Your task to perform on an android device: turn on the 12-hour format for clock Image 0: 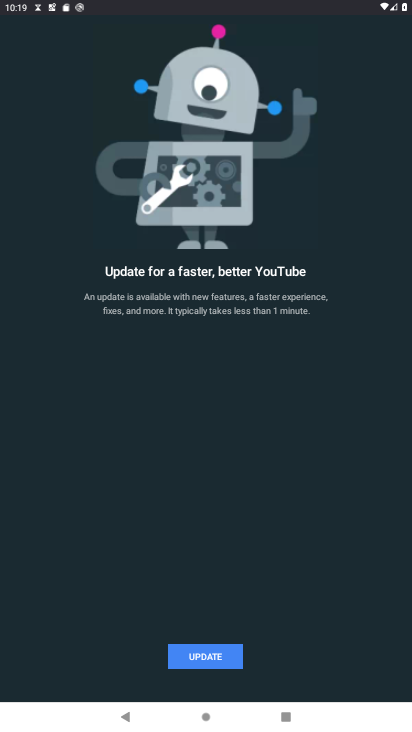
Step 0: press home button
Your task to perform on an android device: turn on the 12-hour format for clock Image 1: 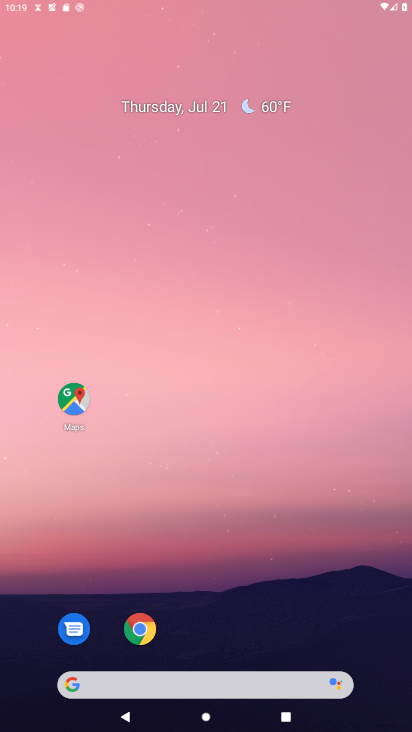
Step 1: drag from (226, 635) to (214, 173)
Your task to perform on an android device: turn on the 12-hour format for clock Image 2: 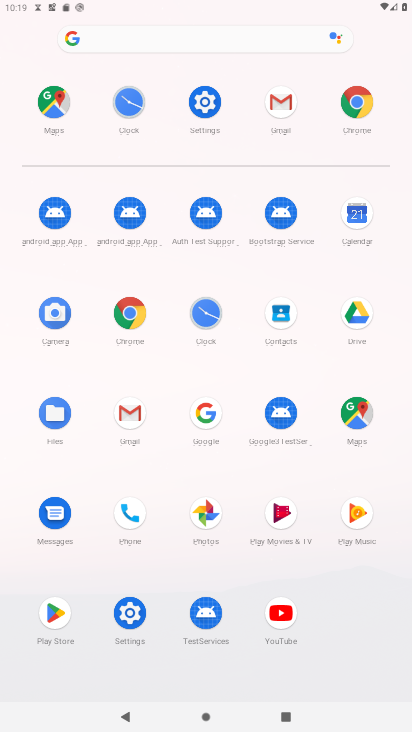
Step 2: click (214, 303)
Your task to perform on an android device: turn on the 12-hour format for clock Image 3: 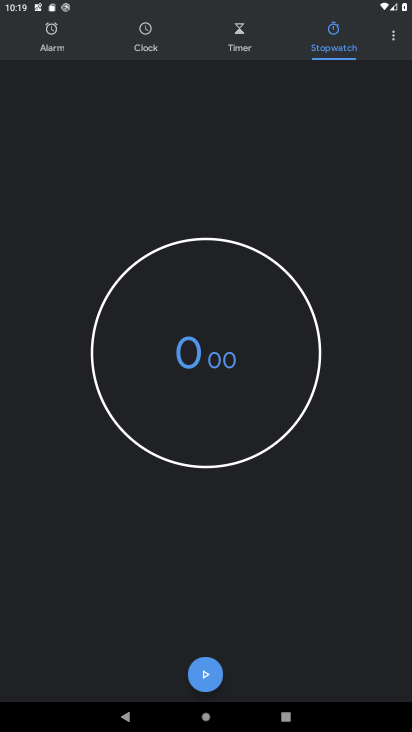
Step 3: click (394, 33)
Your task to perform on an android device: turn on the 12-hour format for clock Image 4: 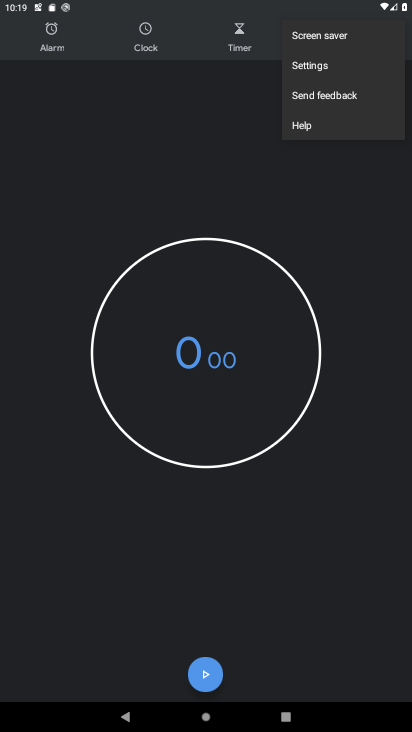
Step 4: click (336, 68)
Your task to perform on an android device: turn on the 12-hour format for clock Image 5: 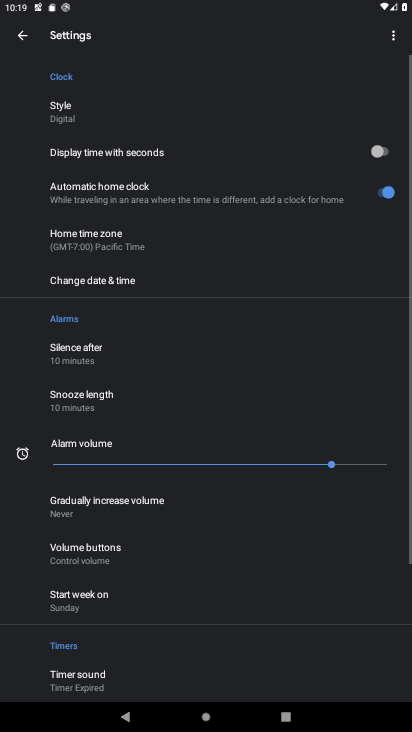
Step 5: click (130, 282)
Your task to perform on an android device: turn on the 12-hour format for clock Image 6: 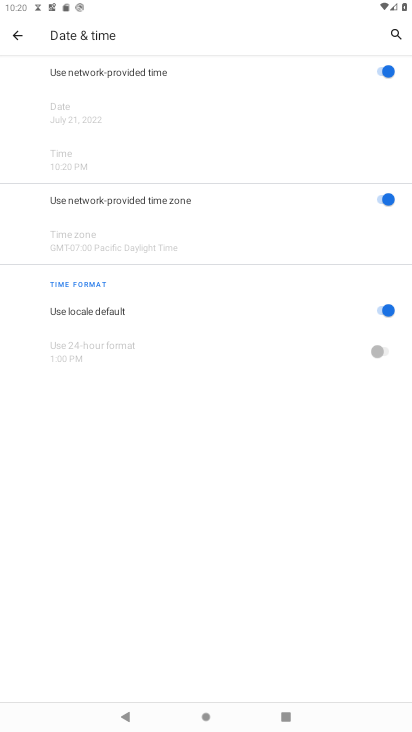
Step 6: click (390, 302)
Your task to perform on an android device: turn on the 12-hour format for clock Image 7: 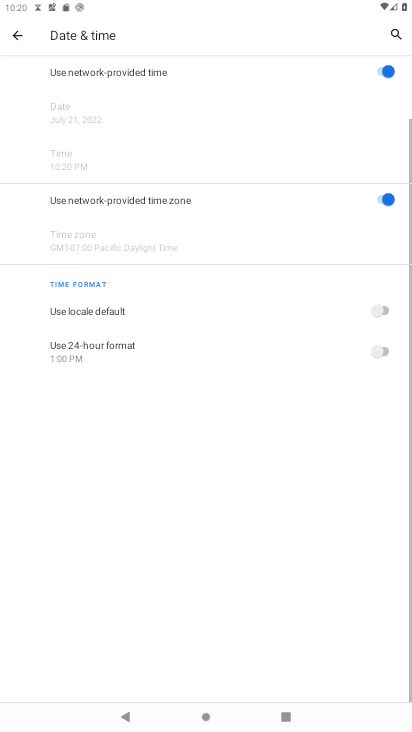
Step 7: click (380, 348)
Your task to perform on an android device: turn on the 12-hour format for clock Image 8: 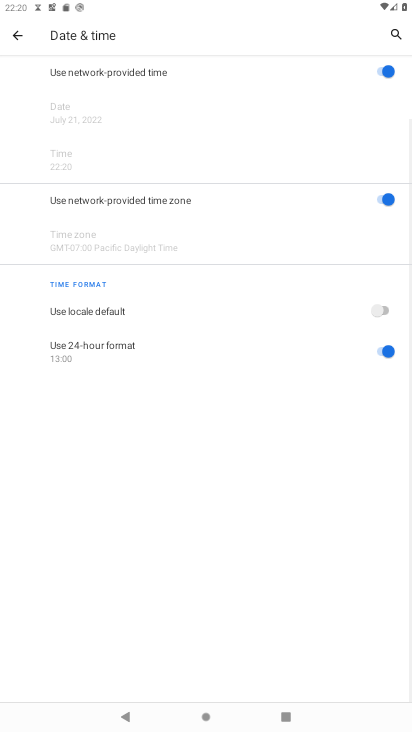
Step 8: task complete